Your task to perform on an android device: toggle notifications settings in the gmail app Image 0: 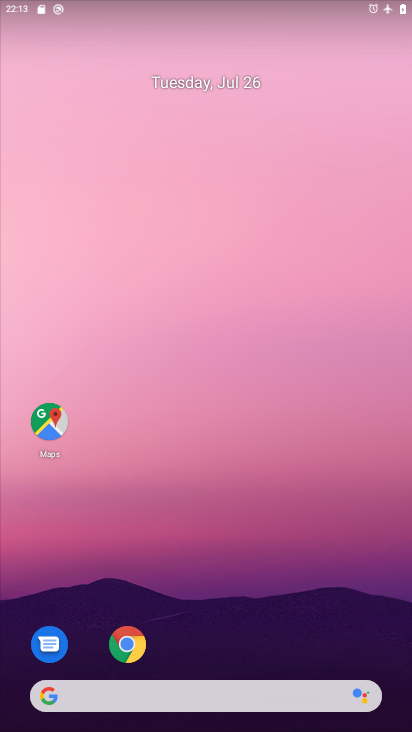
Step 0: drag from (264, 670) to (191, 67)
Your task to perform on an android device: toggle notifications settings in the gmail app Image 1: 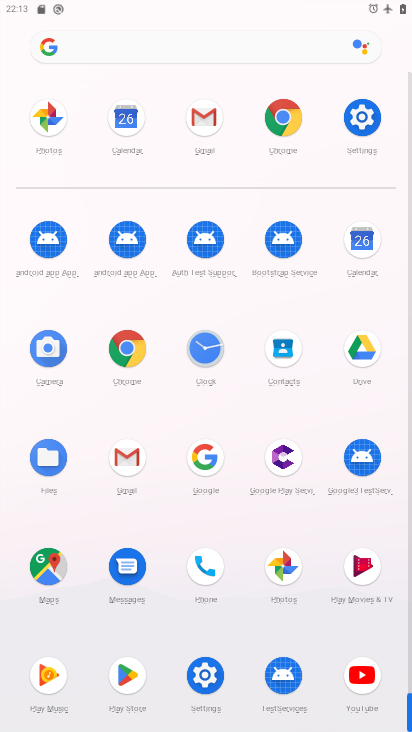
Step 1: click (205, 109)
Your task to perform on an android device: toggle notifications settings in the gmail app Image 2: 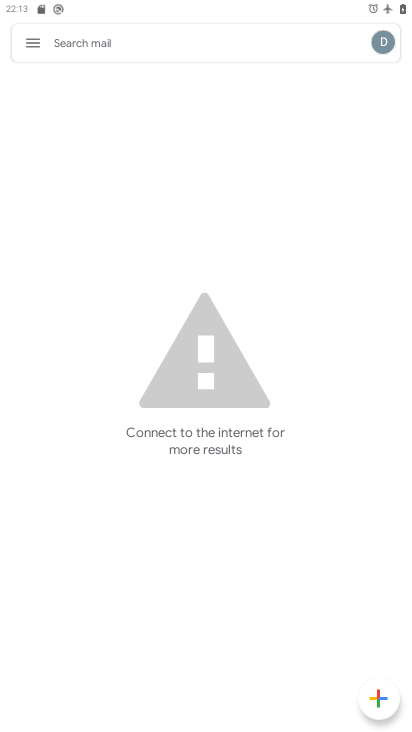
Step 2: click (32, 41)
Your task to perform on an android device: toggle notifications settings in the gmail app Image 3: 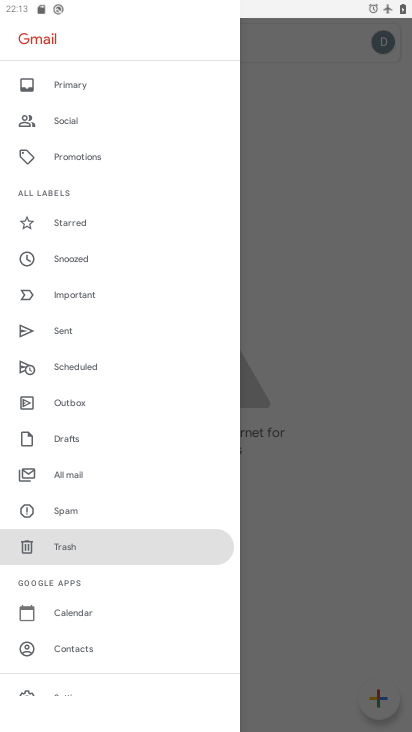
Step 3: drag from (78, 654) to (102, 325)
Your task to perform on an android device: toggle notifications settings in the gmail app Image 4: 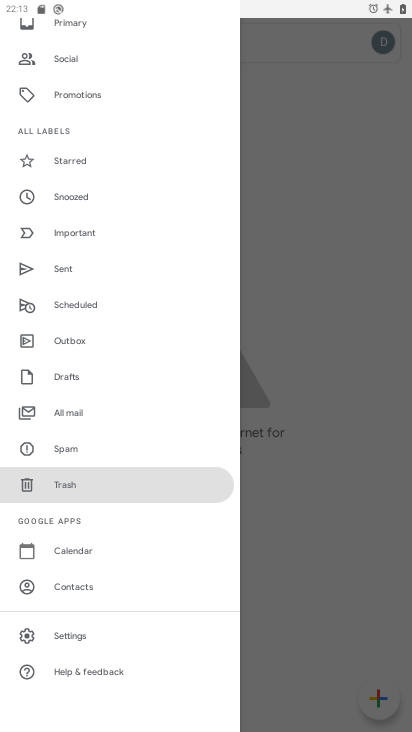
Step 4: click (56, 638)
Your task to perform on an android device: toggle notifications settings in the gmail app Image 5: 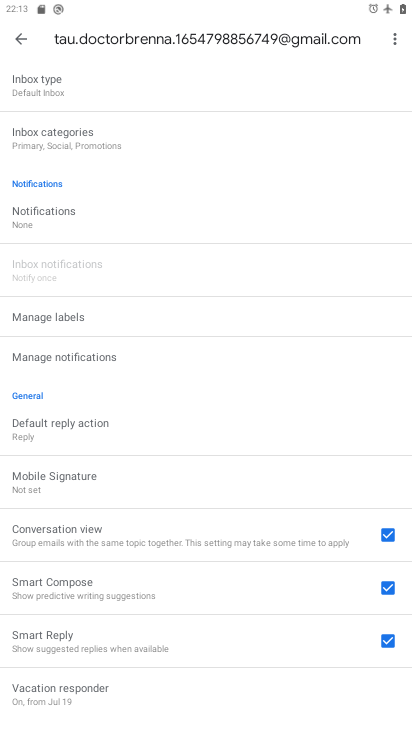
Step 5: click (66, 224)
Your task to perform on an android device: toggle notifications settings in the gmail app Image 6: 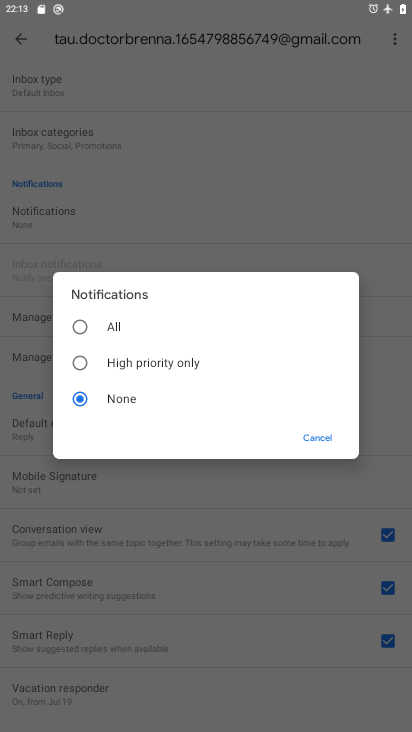
Step 6: click (84, 332)
Your task to perform on an android device: toggle notifications settings in the gmail app Image 7: 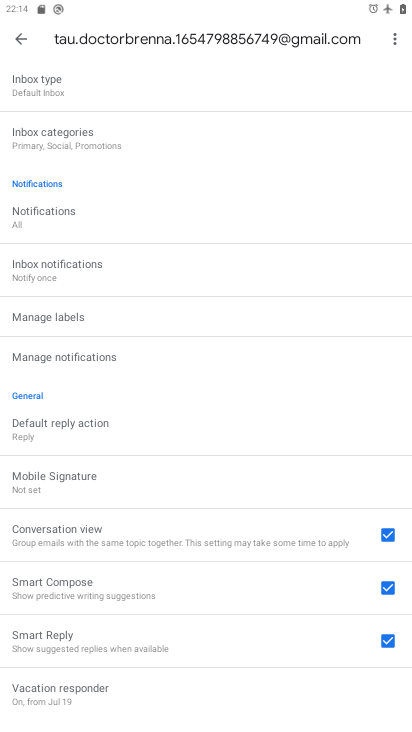
Step 7: click (35, 216)
Your task to perform on an android device: toggle notifications settings in the gmail app Image 8: 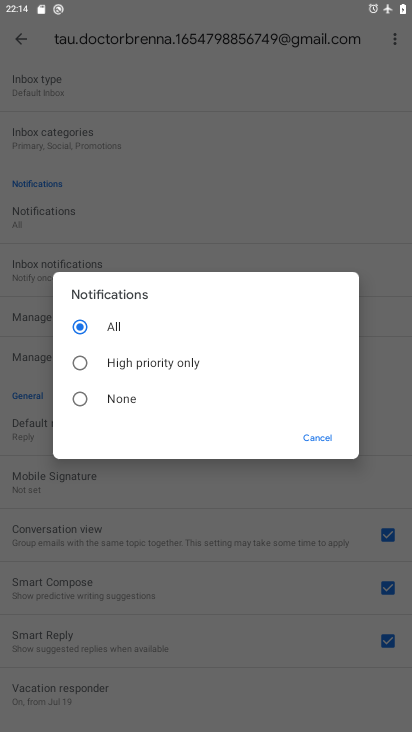
Step 8: click (102, 400)
Your task to perform on an android device: toggle notifications settings in the gmail app Image 9: 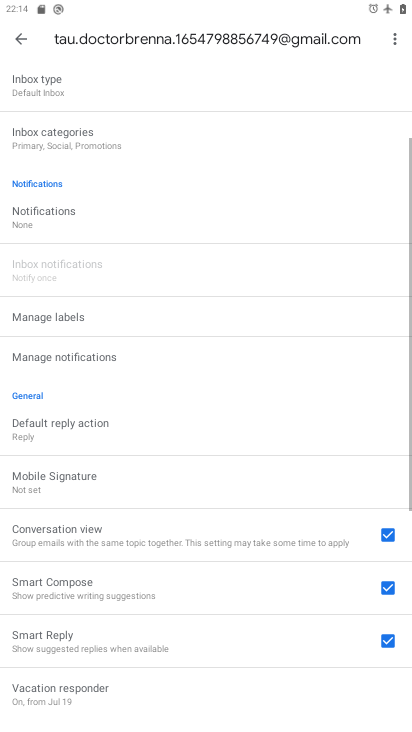
Step 9: task complete